Your task to perform on an android device: Go to wifi settings Image 0: 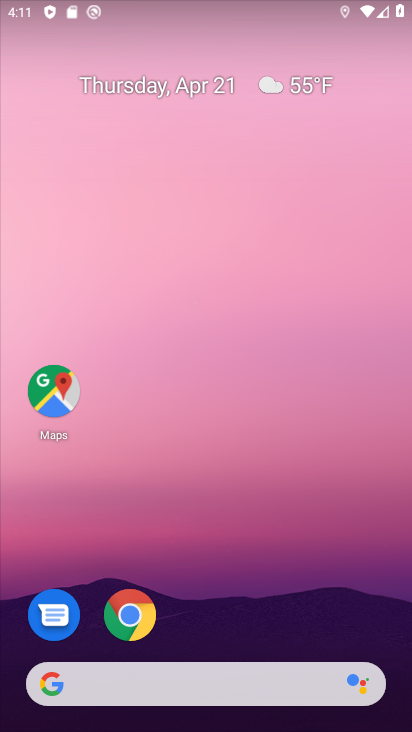
Step 0: drag from (210, 638) to (189, 191)
Your task to perform on an android device: Go to wifi settings Image 1: 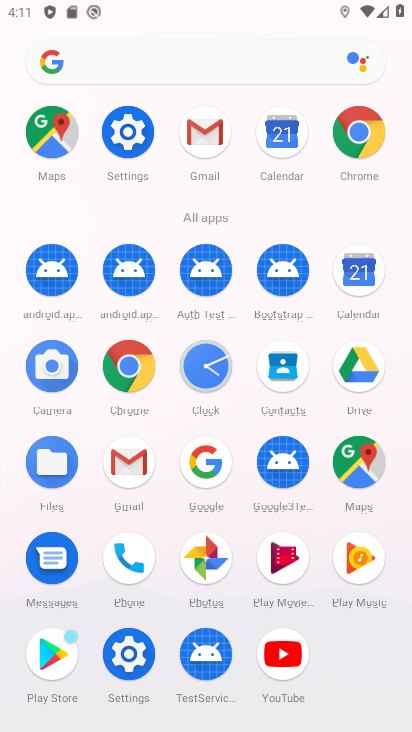
Step 1: click (144, 147)
Your task to perform on an android device: Go to wifi settings Image 2: 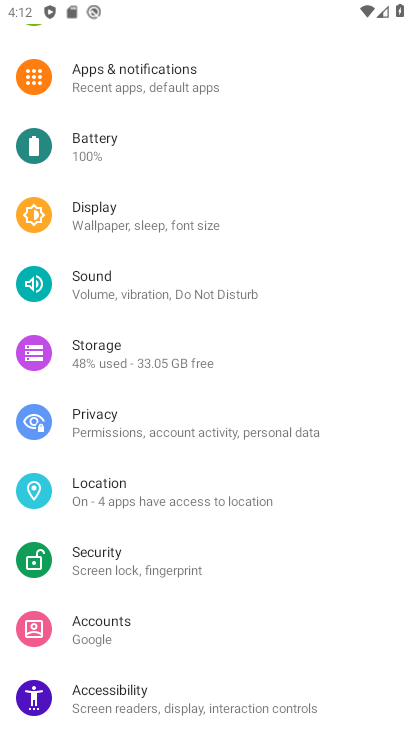
Step 2: drag from (162, 136) to (211, 600)
Your task to perform on an android device: Go to wifi settings Image 3: 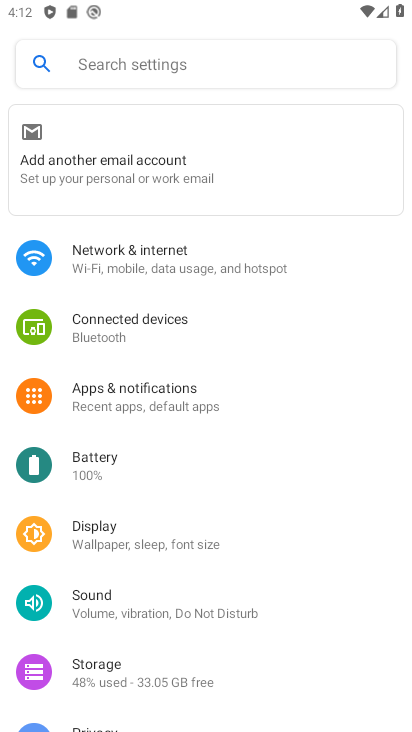
Step 3: click (141, 272)
Your task to perform on an android device: Go to wifi settings Image 4: 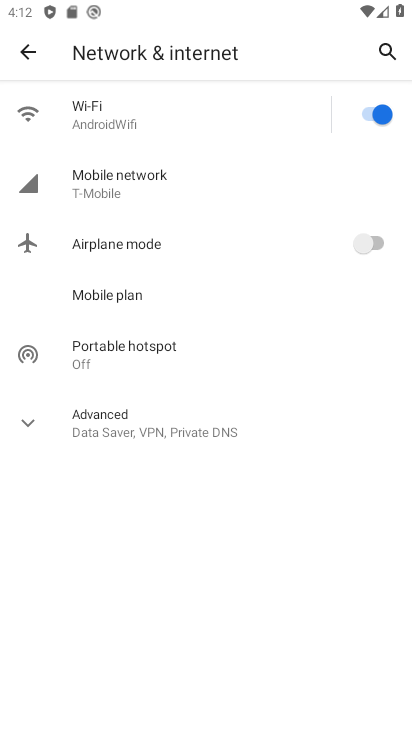
Step 4: click (141, 111)
Your task to perform on an android device: Go to wifi settings Image 5: 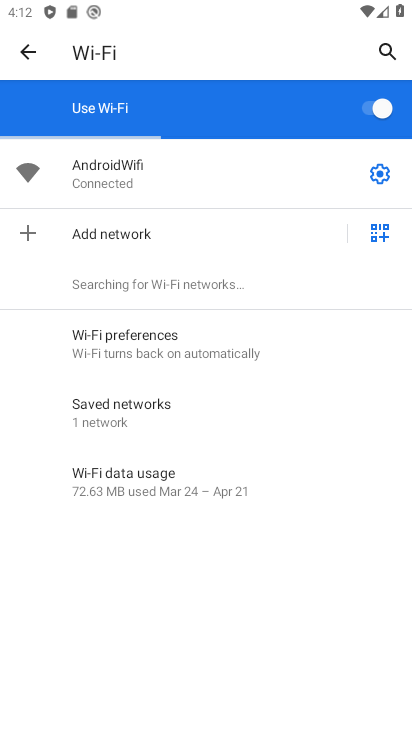
Step 5: task complete